Your task to perform on an android device: turn on the 24-hour format for clock Image 0: 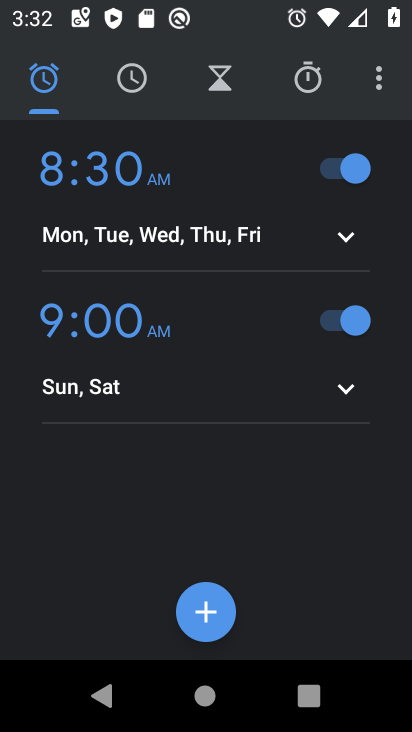
Step 0: press home button
Your task to perform on an android device: turn on the 24-hour format for clock Image 1: 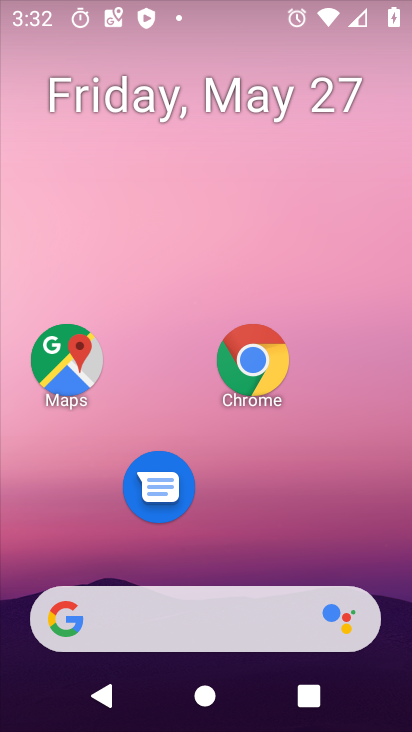
Step 1: drag from (234, 528) to (276, 45)
Your task to perform on an android device: turn on the 24-hour format for clock Image 2: 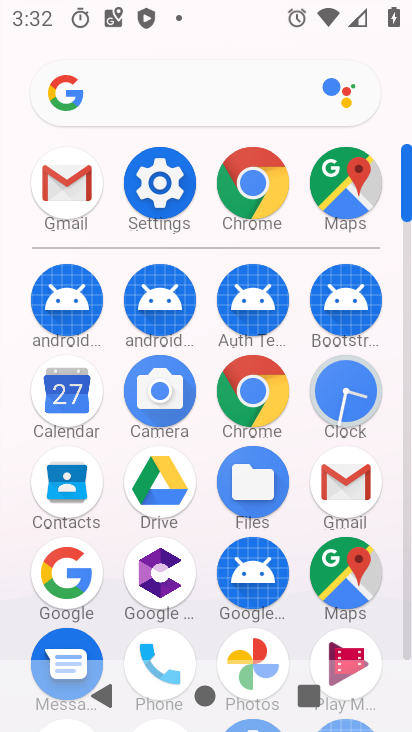
Step 2: click (357, 391)
Your task to perform on an android device: turn on the 24-hour format for clock Image 3: 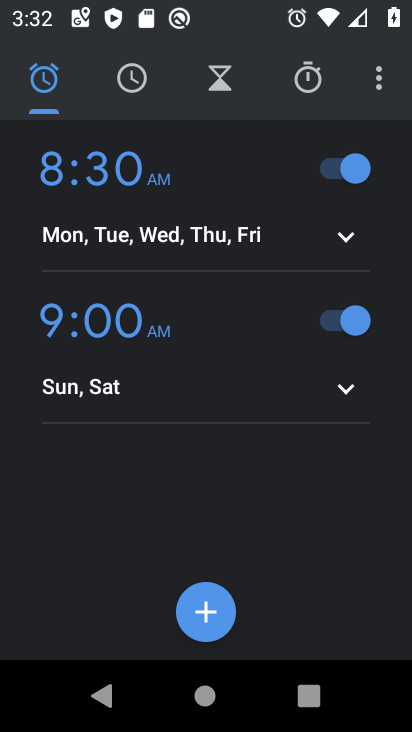
Step 3: click (365, 84)
Your task to perform on an android device: turn on the 24-hour format for clock Image 4: 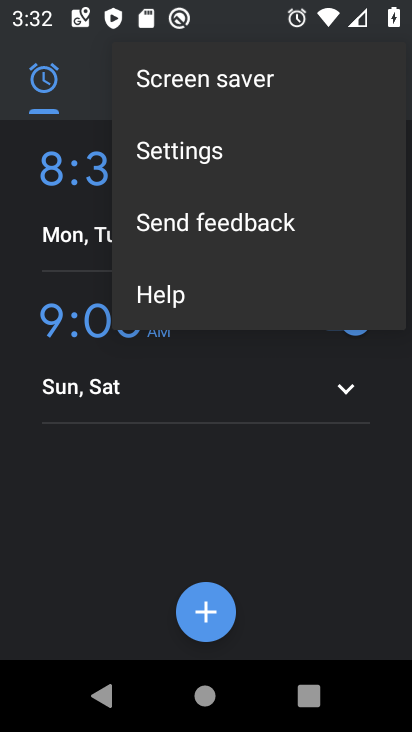
Step 4: click (192, 157)
Your task to perform on an android device: turn on the 24-hour format for clock Image 5: 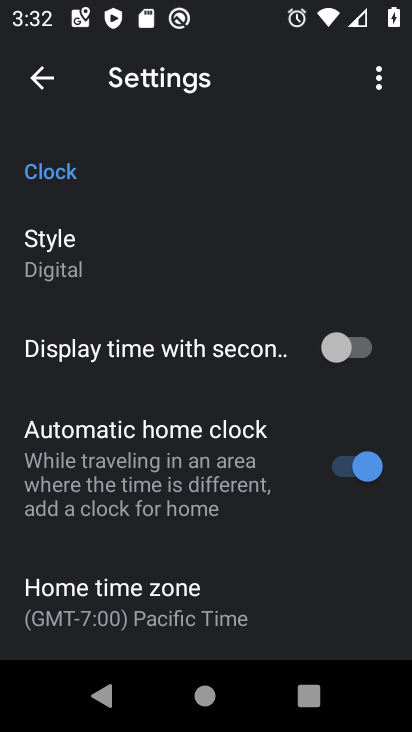
Step 5: drag from (204, 494) to (242, 112)
Your task to perform on an android device: turn on the 24-hour format for clock Image 6: 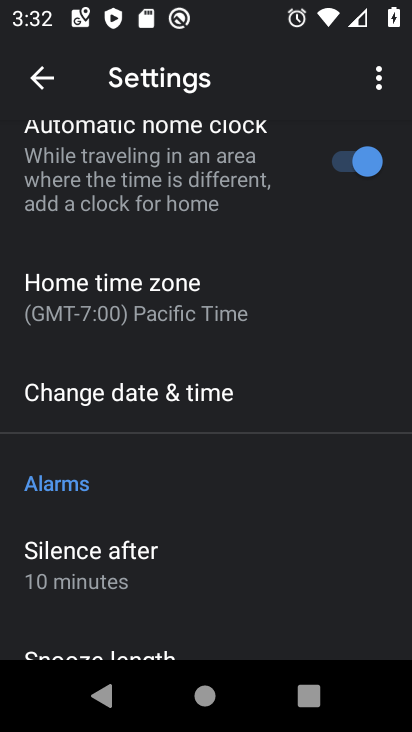
Step 6: click (132, 389)
Your task to perform on an android device: turn on the 24-hour format for clock Image 7: 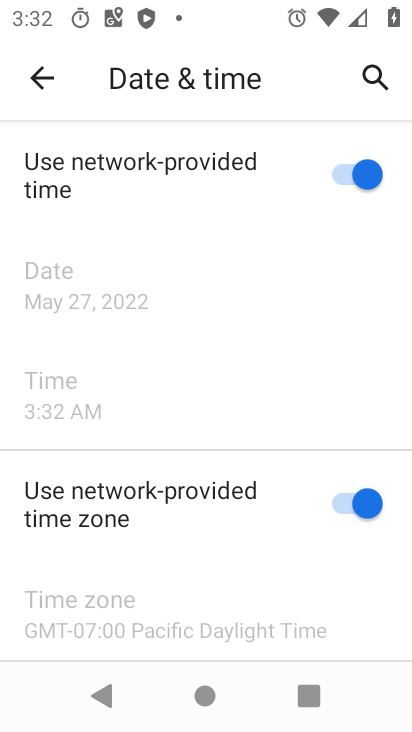
Step 7: drag from (333, 566) to (372, 113)
Your task to perform on an android device: turn on the 24-hour format for clock Image 8: 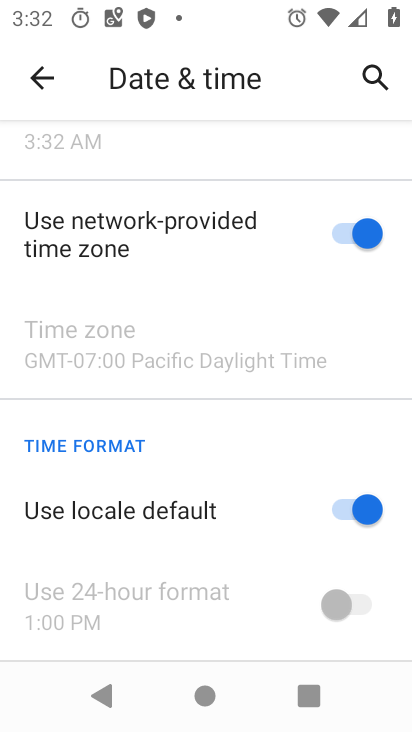
Step 8: click (356, 508)
Your task to perform on an android device: turn on the 24-hour format for clock Image 9: 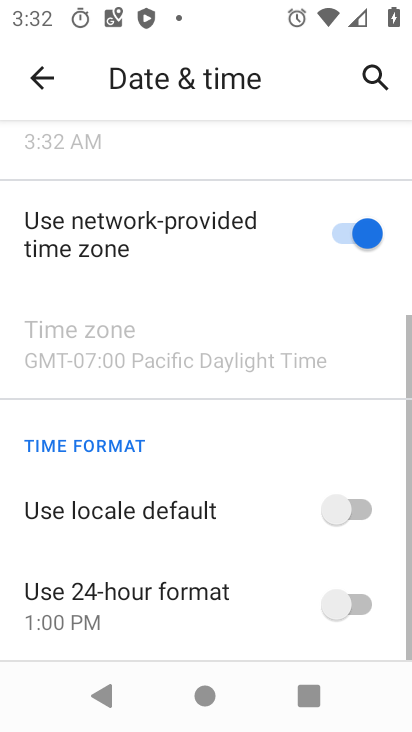
Step 9: click (345, 608)
Your task to perform on an android device: turn on the 24-hour format for clock Image 10: 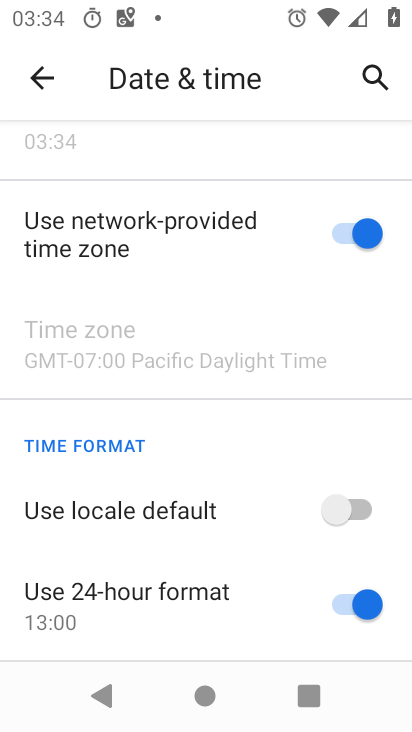
Step 10: task complete